Your task to perform on an android device: Find coffee shops on Maps Image 0: 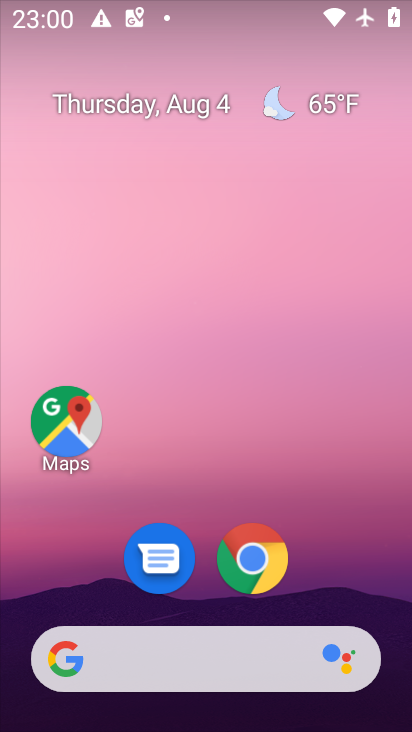
Step 0: click (58, 421)
Your task to perform on an android device: Find coffee shops on Maps Image 1: 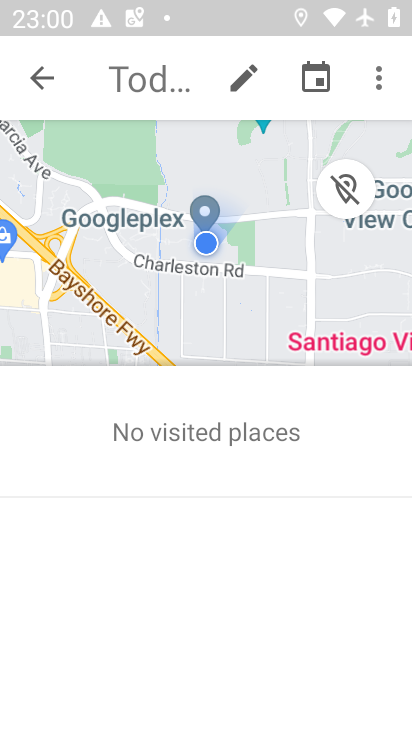
Step 1: click (59, 63)
Your task to perform on an android device: Find coffee shops on Maps Image 2: 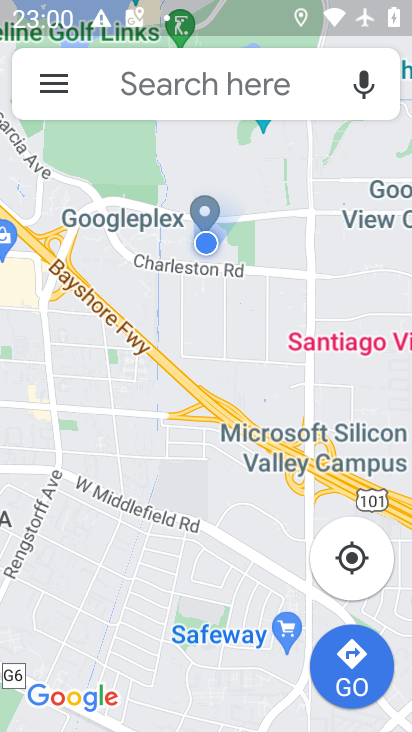
Step 2: click (205, 68)
Your task to perform on an android device: Find coffee shops on Maps Image 3: 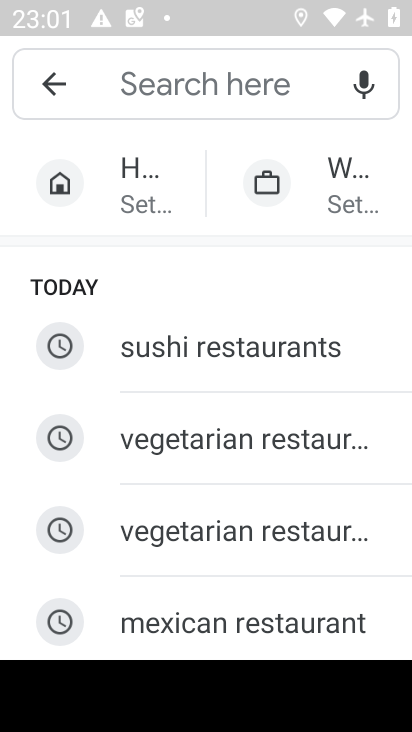
Step 3: type "coffee shops"
Your task to perform on an android device: Find coffee shops on Maps Image 4: 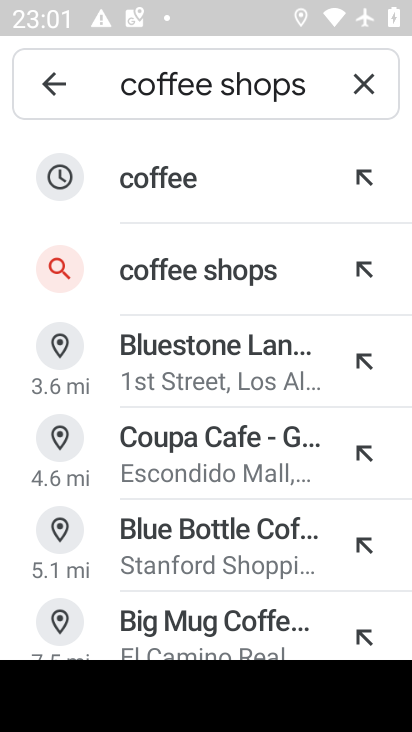
Step 4: press enter
Your task to perform on an android device: Find coffee shops on Maps Image 5: 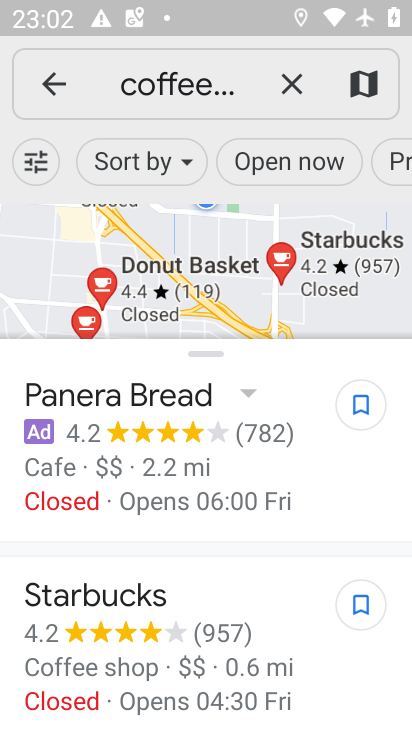
Step 5: task complete